Your task to perform on an android device: open a bookmark in the chrome app Image 0: 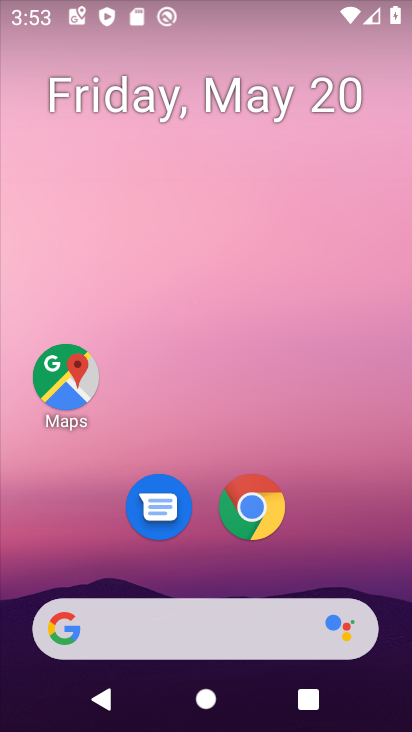
Step 0: click (255, 505)
Your task to perform on an android device: open a bookmark in the chrome app Image 1: 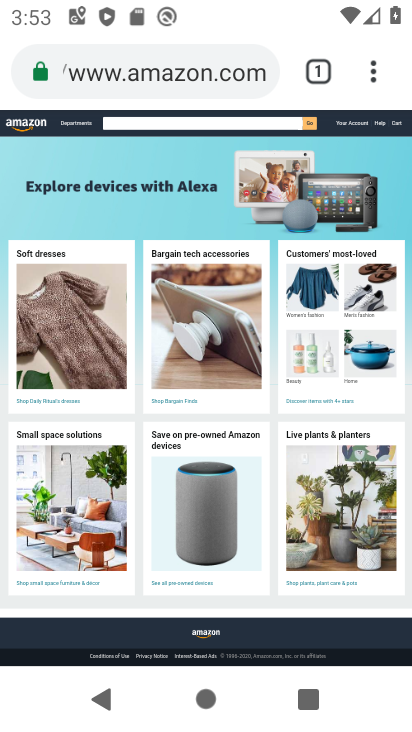
Step 1: click (374, 72)
Your task to perform on an android device: open a bookmark in the chrome app Image 2: 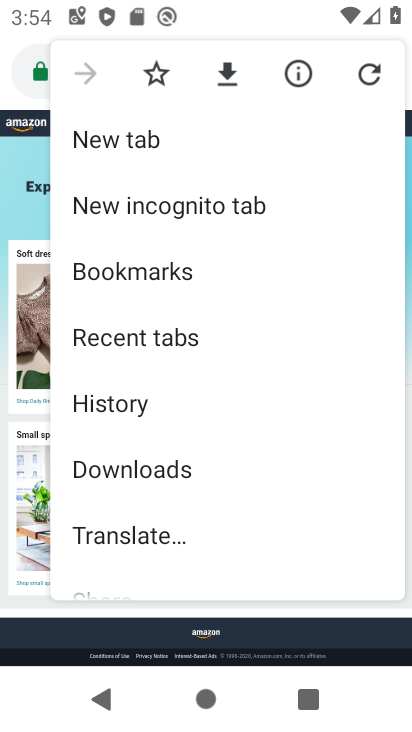
Step 2: click (143, 268)
Your task to perform on an android device: open a bookmark in the chrome app Image 3: 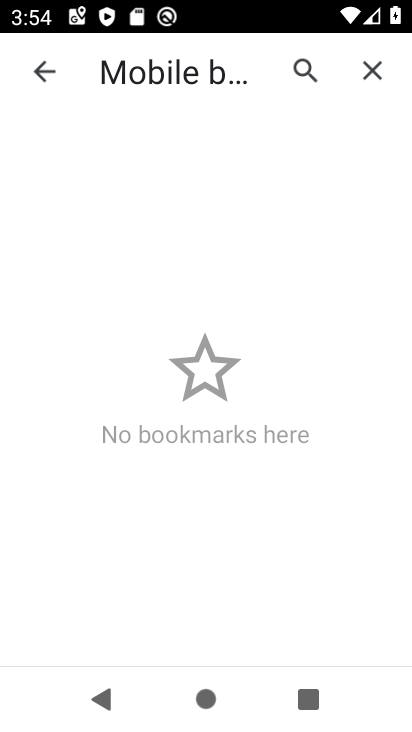
Step 3: task complete